Your task to perform on an android device: What's on my calendar tomorrow? Image 0: 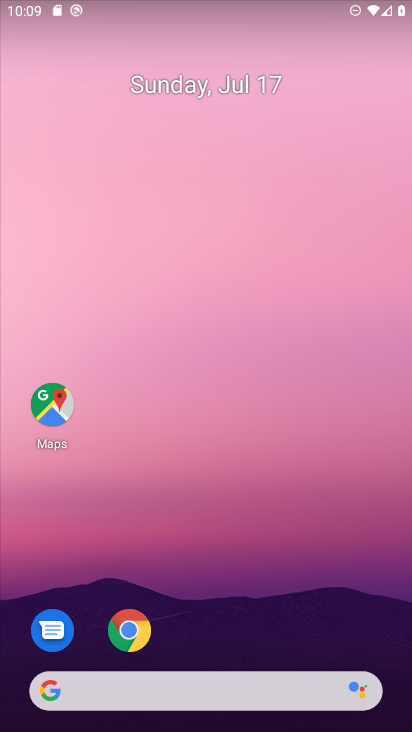
Step 0: drag from (237, 618) to (160, 187)
Your task to perform on an android device: What's on my calendar tomorrow? Image 1: 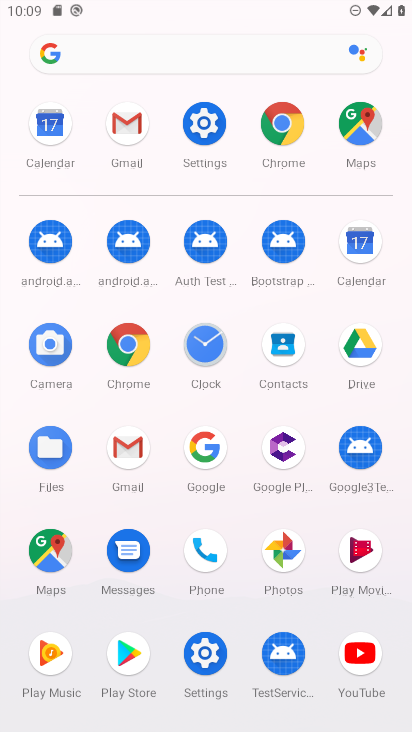
Step 1: click (358, 232)
Your task to perform on an android device: What's on my calendar tomorrow? Image 2: 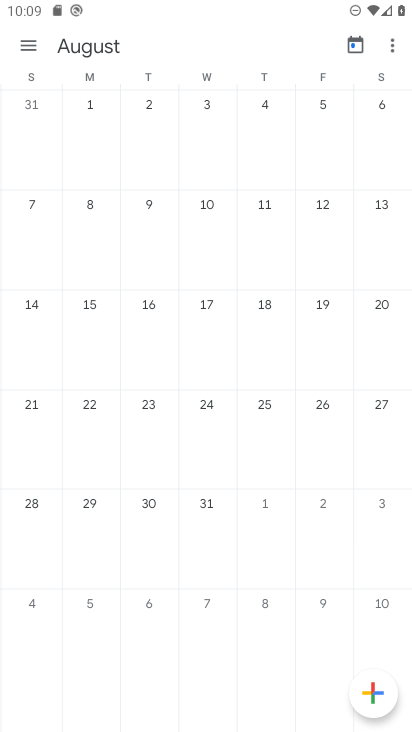
Step 2: drag from (9, 194) to (391, 224)
Your task to perform on an android device: What's on my calendar tomorrow? Image 3: 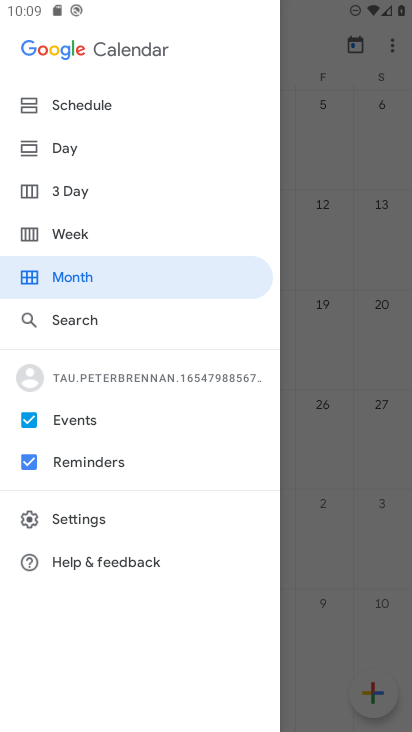
Step 3: click (63, 149)
Your task to perform on an android device: What's on my calendar tomorrow? Image 4: 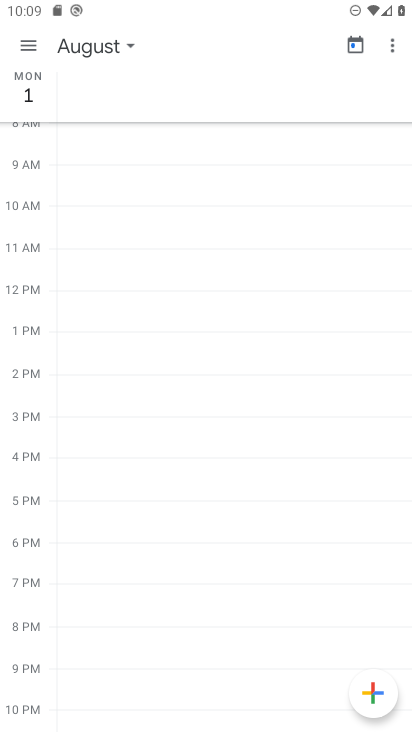
Step 4: click (26, 54)
Your task to perform on an android device: What's on my calendar tomorrow? Image 5: 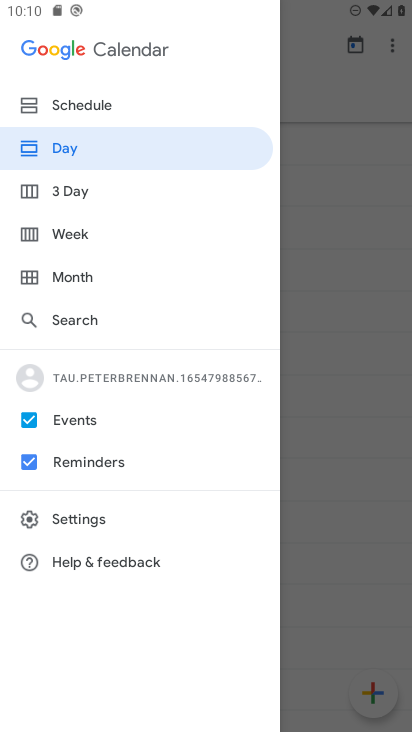
Step 5: click (95, 280)
Your task to perform on an android device: What's on my calendar tomorrow? Image 6: 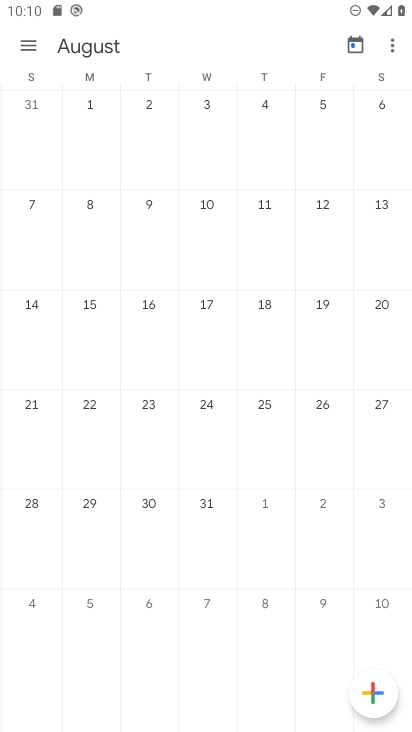
Step 6: drag from (60, 299) to (378, 327)
Your task to perform on an android device: What's on my calendar tomorrow? Image 7: 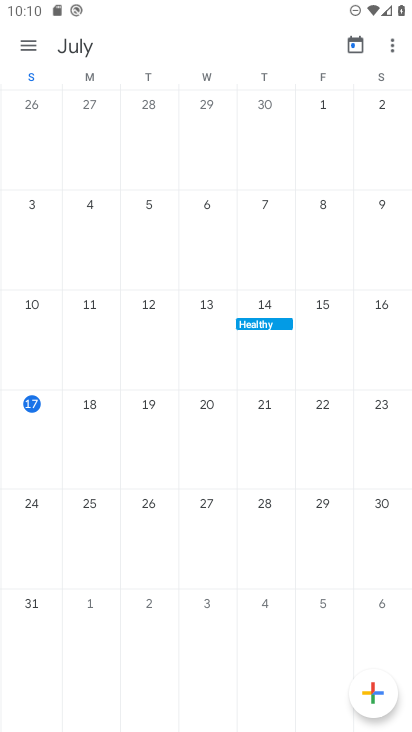
Step 7: click (156, 418)
Your task to perform on an android device: What's on my calendar tomorrow? Image 8: 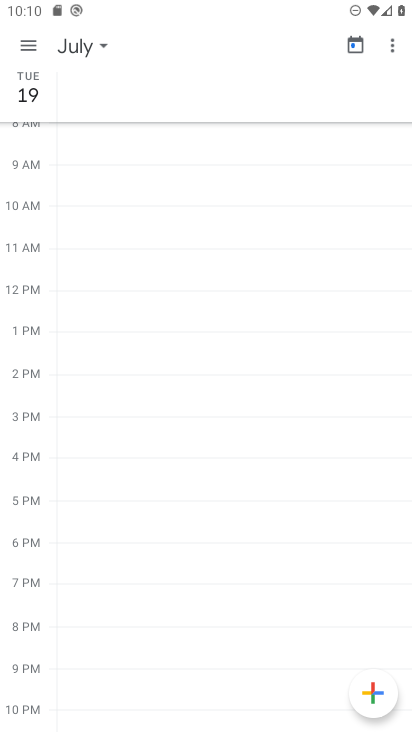
Step 8: task complete